Your task to perform on an android device: set default search engine in the chrome app Image 0: 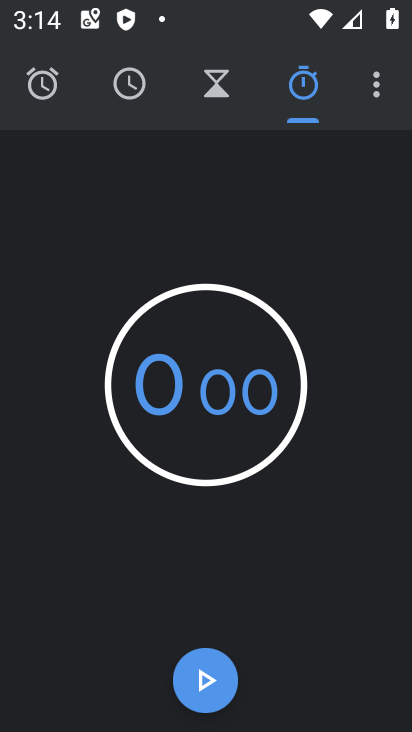
Step 0: press home button
Your task to perform on an android device: set default search engine in the chrome app Image 1: 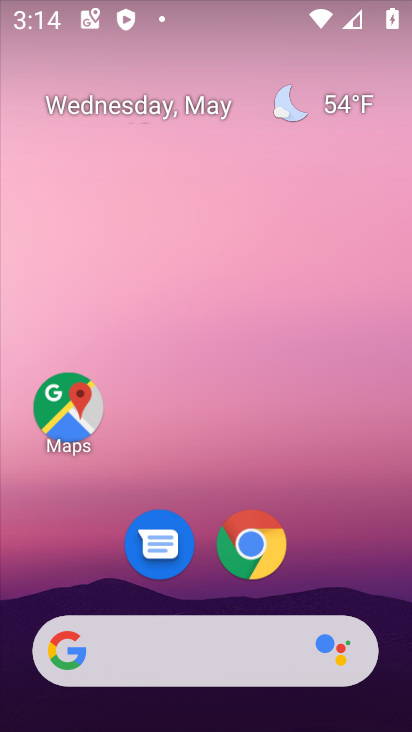
Step 1: click (279, 551)
Your task to perform on an android device: set default search engine in the chrome app Image 2: 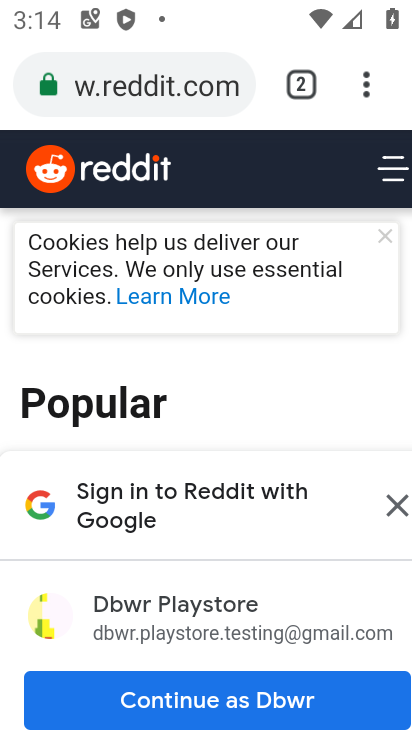
Step 2: click (375, 90)
Your task to perform on an android device: set default search engine in the chrome app Image 3: 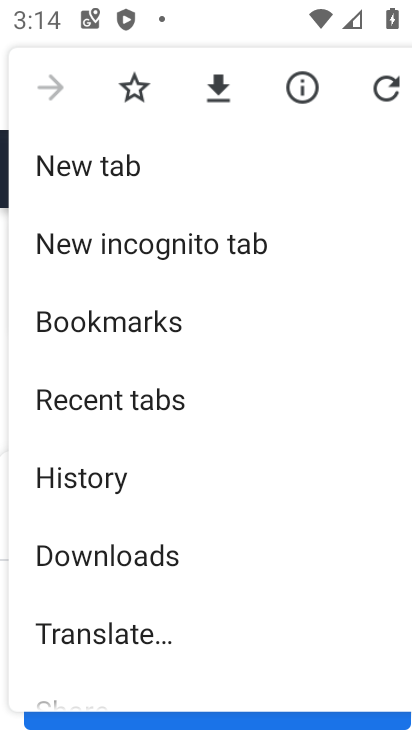
Step 3: drag from (267, 505) to (337, 103)
Your task to perform on an android device: set default search engine in the chrome app Image 4: 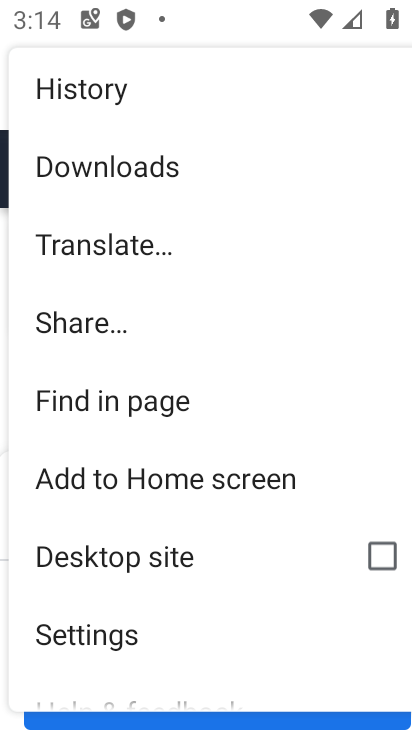
Step 4: click (221, 611)
Your task to perform on an android device: set default search engine in the chrome app Image 5: 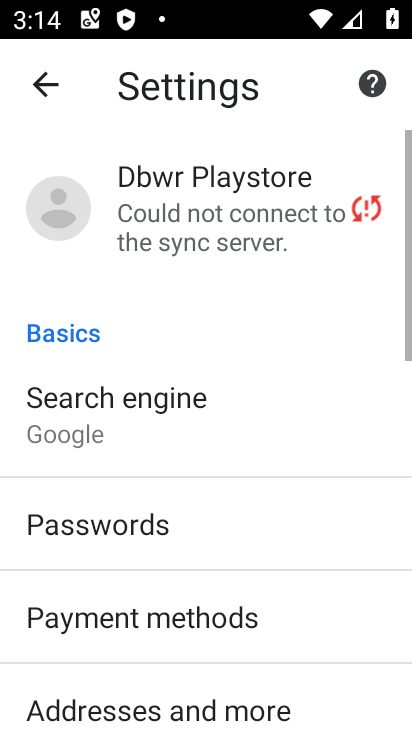
Step 5: click (192, 447)
Your task to perform on an android device: set default search engine in the chrome app Image 6: 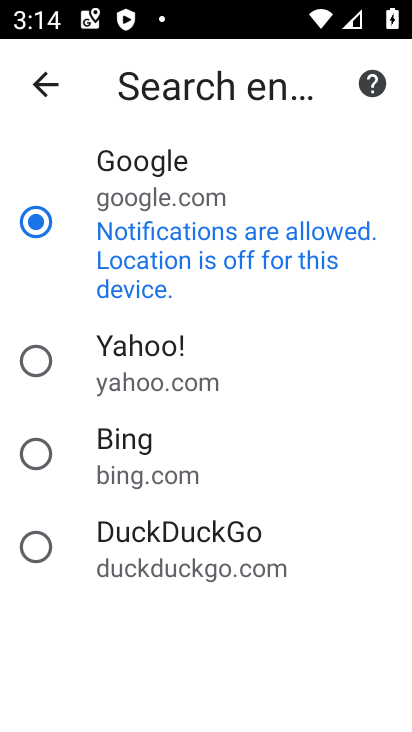
Step 6: click (185, 493)
Your task to perform on an android device: set default search engine in the chrome app Image 7: 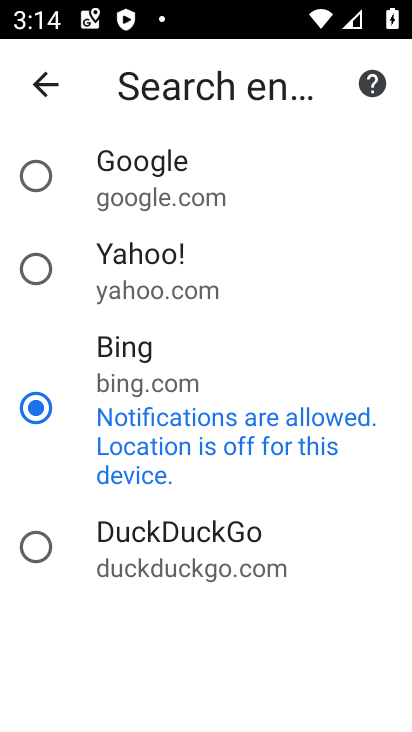
Step 7: task complete